Your task to perform on an android device: turn off smart reply in the gmail app Image 0: 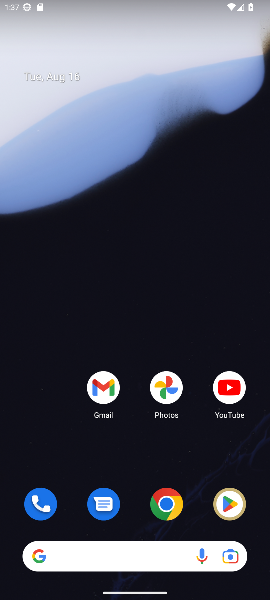
Step 0: click (105, 389)
Your task to perform on an android device: turn off smart reply in the gmail app Image 1: 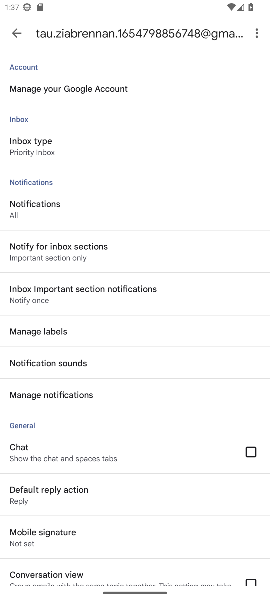
Step 1: drag from (163, 452) to (172, 201)
Your task to perform on an android device: turn off smart reply in the gmail app Image 2: 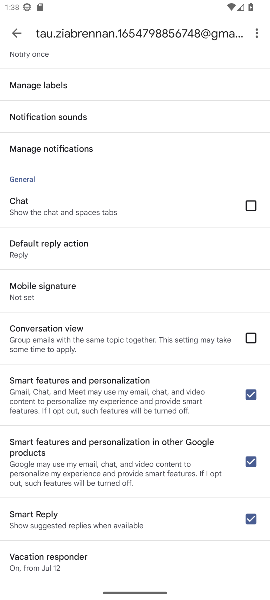
Step 2: click (249, 517)
Your task to perform on an android device: turn off smart reply in the gmail app Image 3: 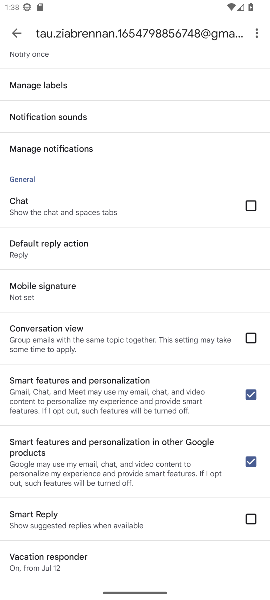
Step 3: task complete